Your task to perform on an android device: add a contact in the contacts app Image 0: 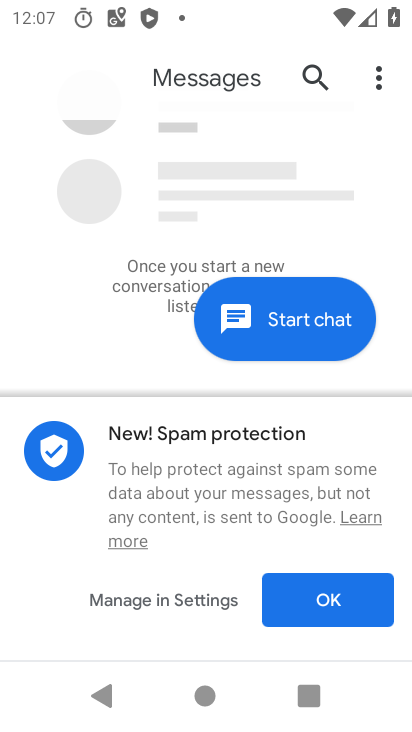
Step 0: press home button
Your task to perform on an android device: add a contact in the contacts app Image 1: 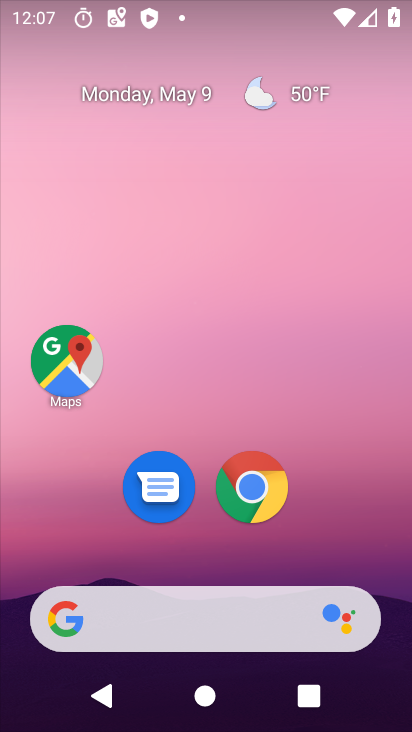
Step 1: drag from (296, 538) to (337, 172)
Your task to perform on an android device: add a contact in the contacts app Image 2: 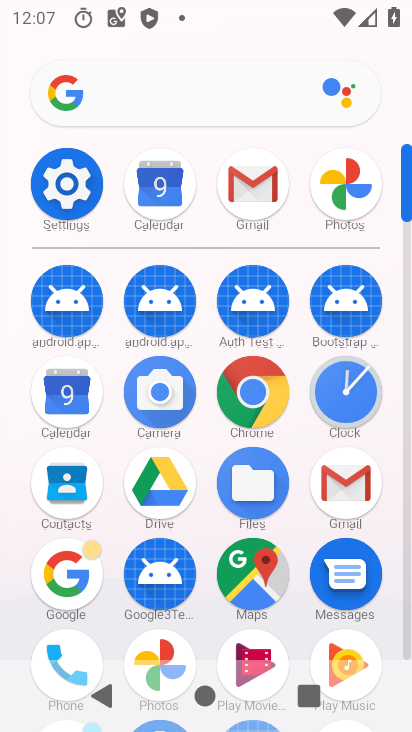
Step 2: click (68, 488)
Your task to perform on an android device: add a contact in the contacts app Image 3: 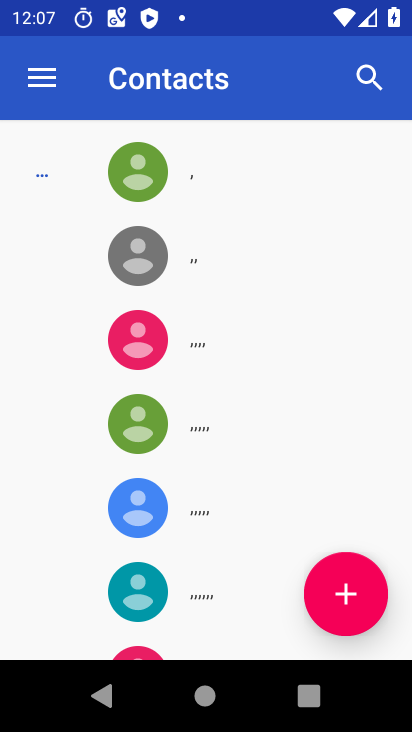
Step 3: click (326, 595)
Your task to perform on an android device: add a contact in the contacts app Image 4: 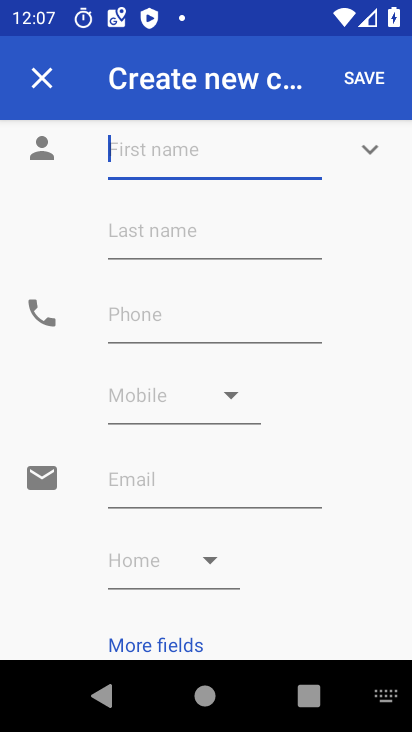
Step 4: type "contact1"
Your task to perform on an android device: add a contact in the contacts app Image 5: 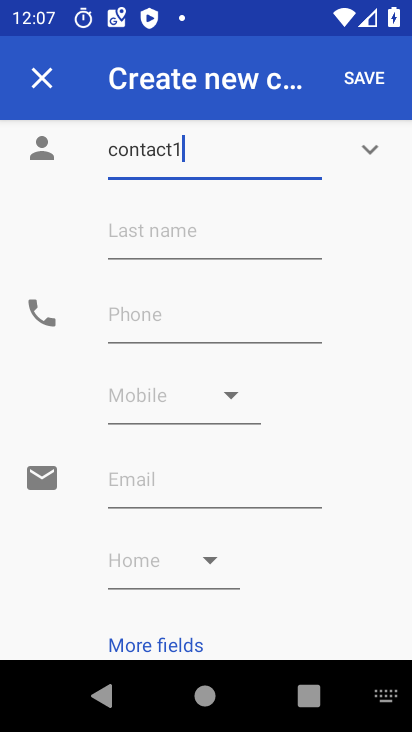
Step 5: click (180, 320)
Your task to perform on an android device: add a contact in the contacts app Image 6: 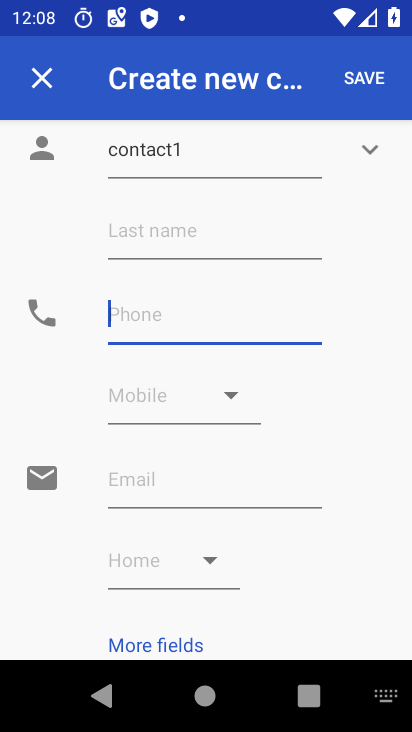
Step 6: type "4565465667"
Your task to perform on an android device: add a contact in the contacts app Image 7: 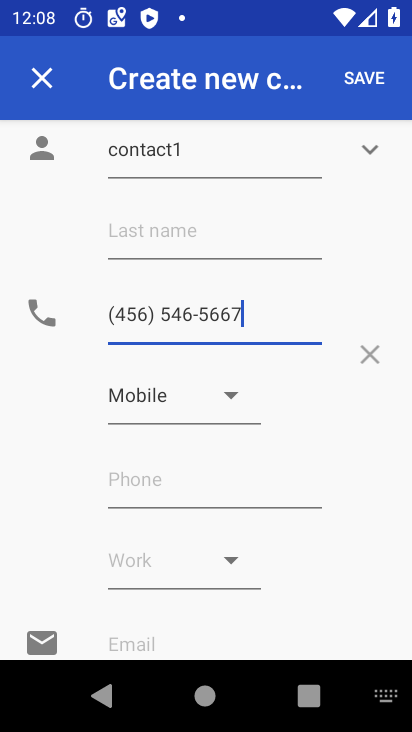
Step 7: click (367, 78)
Your task to perform on an android device: add a contact in the contacts app Image 8: 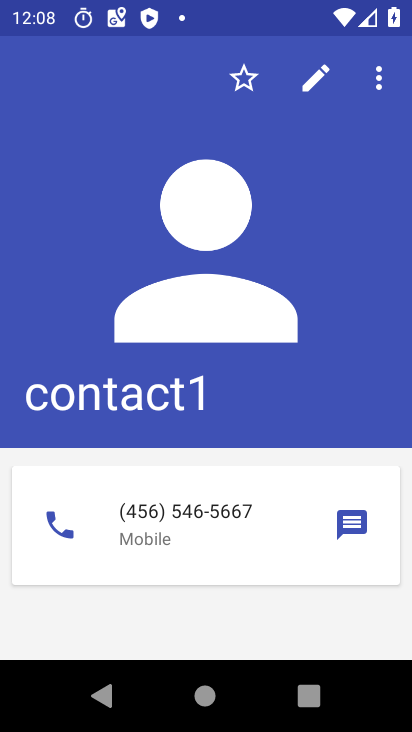
Step 8: task complete